Your task to perform on an android device: Go to calendar. Show me events next week Image 0: 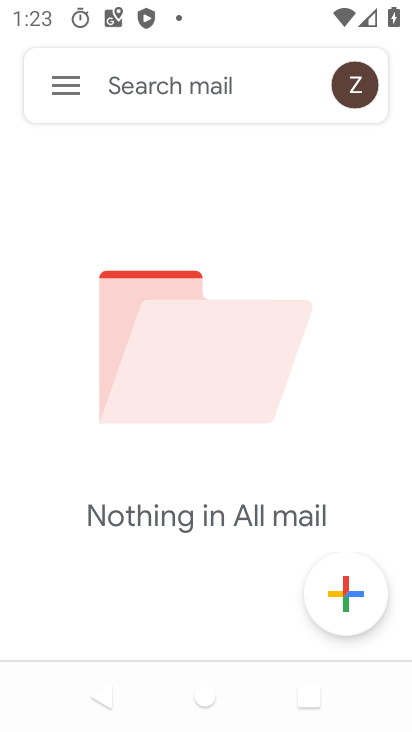
Step 0: press home button
Your task to perform on an android device: Go to calendar. Show me events next week Image 1: 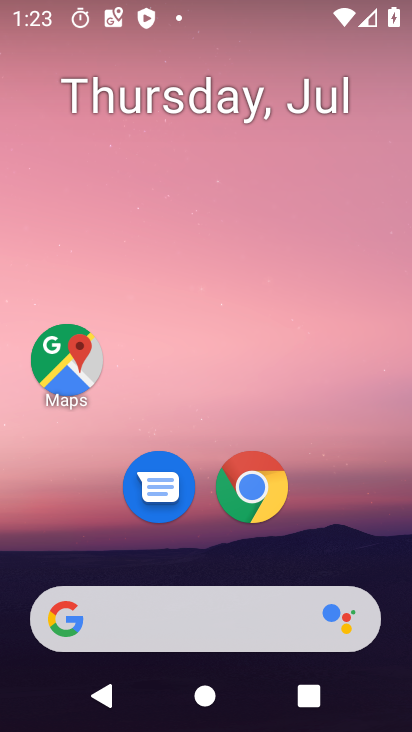
Step 1: drag from (270, 590) to (302, 148)
Your task to perform on an android device: Go to calendar. Show me events next week Image 2: 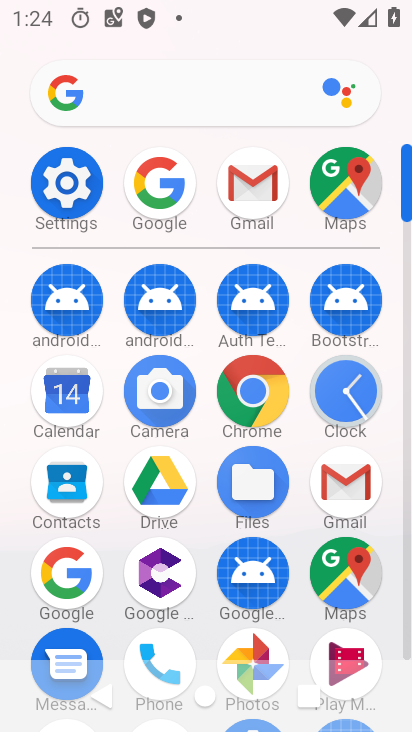
Step 2: click (72, 410)
Your task to perform on an android device: Go to calendar. Show me events next week Image 3: 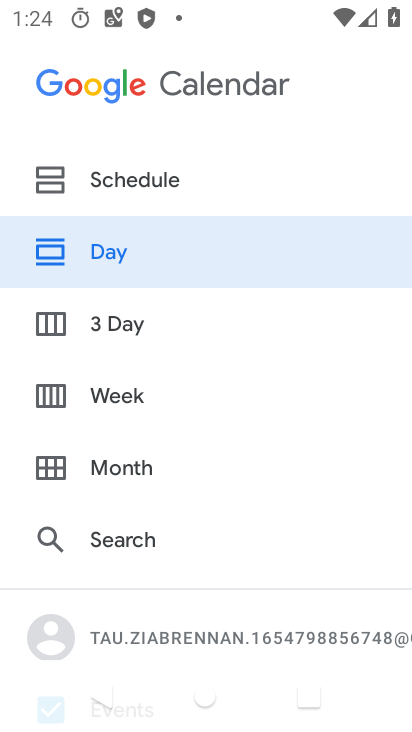
Step 3: click (163, 200)
Your task to perform on an android device: Go to calendar. Show me events next week Image 4: 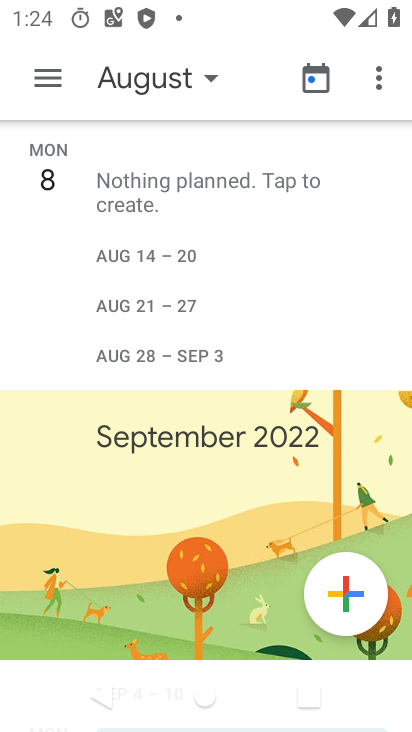
Step 4: click (143, 82)
Your task to perform on an android device: Go to calendar. Show me events next week Image 5: 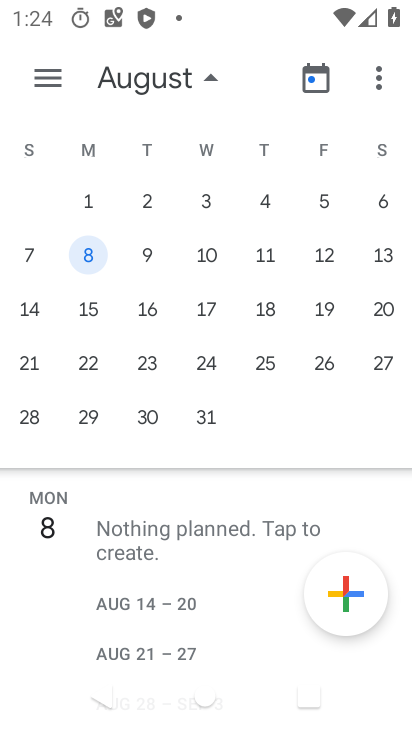
Step 5: drag from (102, 319) to (407, 276)
Your task to perform on an android device: Go to calendar. Show me events next week Image 6: 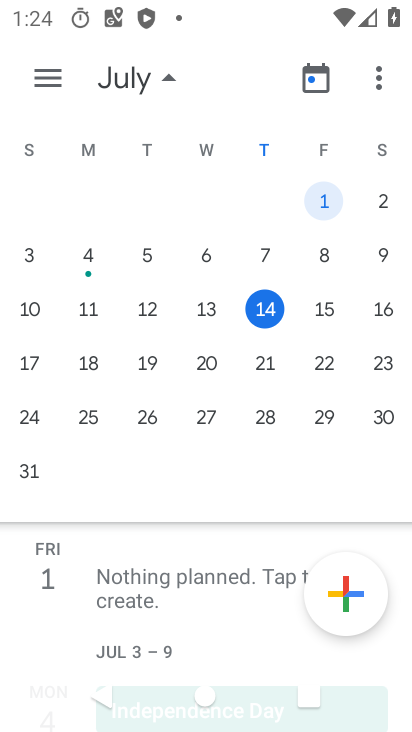
Step 6: click (40, 367)
Your task to perform on an android device: Go to calendar. Show me events next week Image 7: 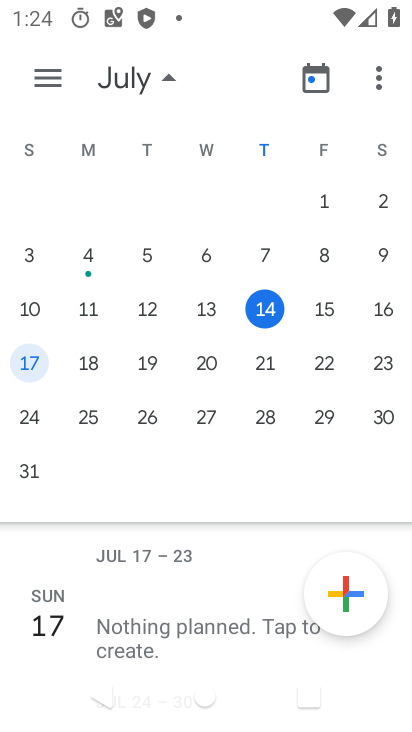
Step 7: task complete